Your task to perform on an android device: turn off wifi Image 0: 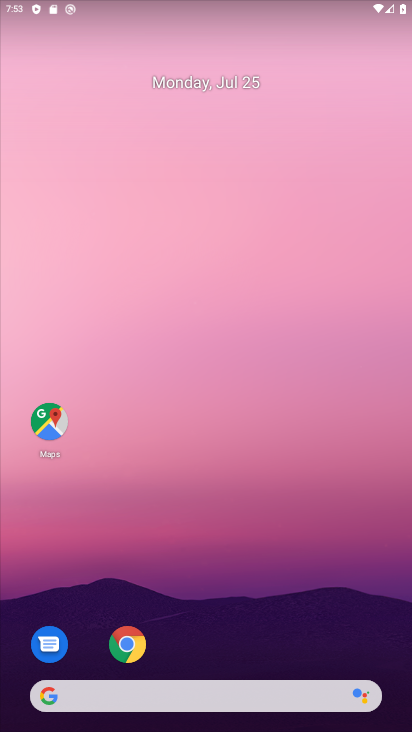
Step 0: drag from (172, 534) to (198, 95)
Your task to perform on an android device: turn off wifi Image 1: 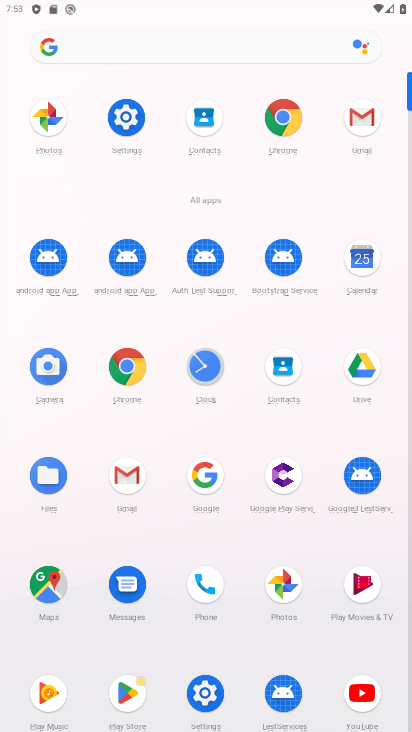
Step 1: click (130, 119)
Your task to perform on an android device: turn off wifi Image 2: 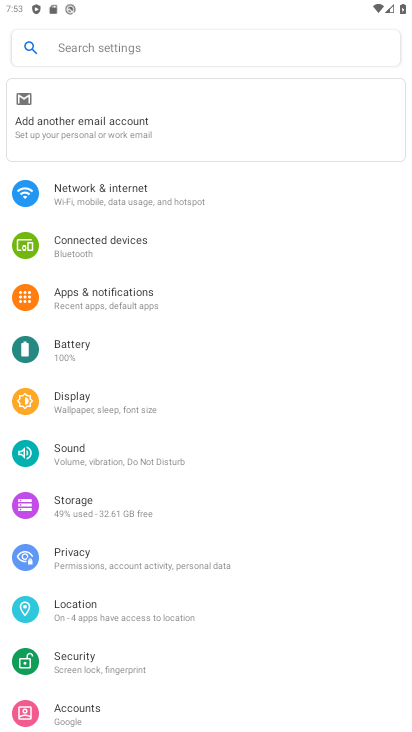
Step 2: click (107, 664)
Your task to perform on an android device: turn off wifi Image 3: 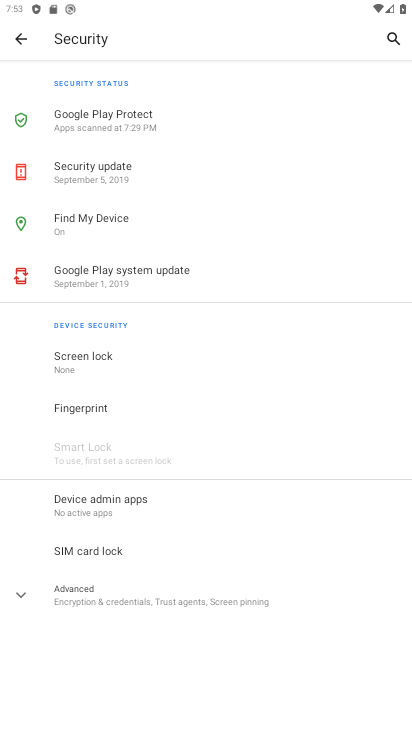
Step 3: click (21, 45)
Your task to perform on an android device: turn off wifi Image 4: 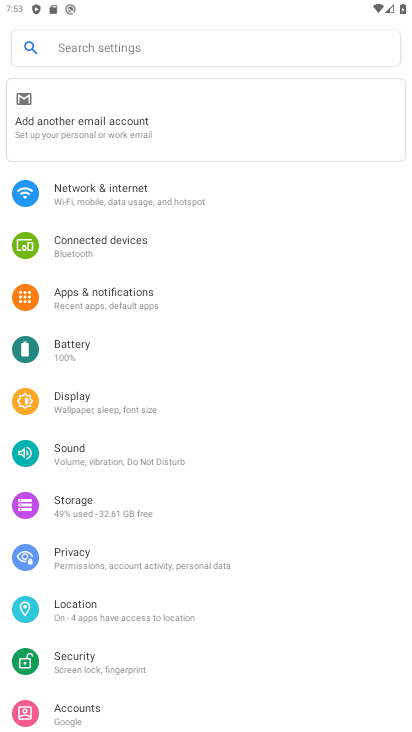
Step 4: drag from (172, 630) to (215, 331)
Your task to perform on an android device: turn off wifi Image 5: 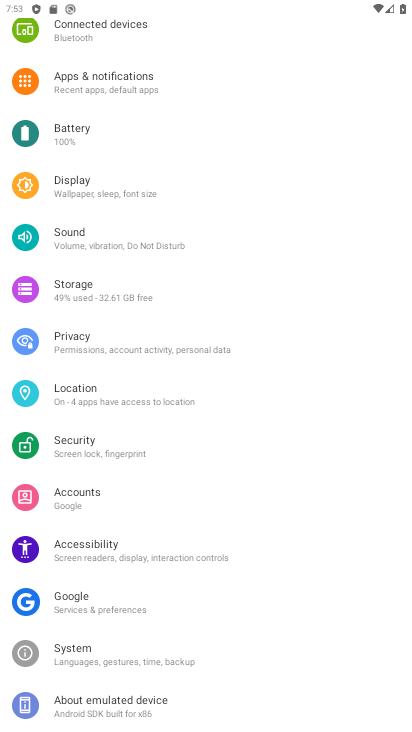
Step 5: drag from (199, 286) to (199, 614)
Your task to perform on an android device: turn off wifi Image 6: 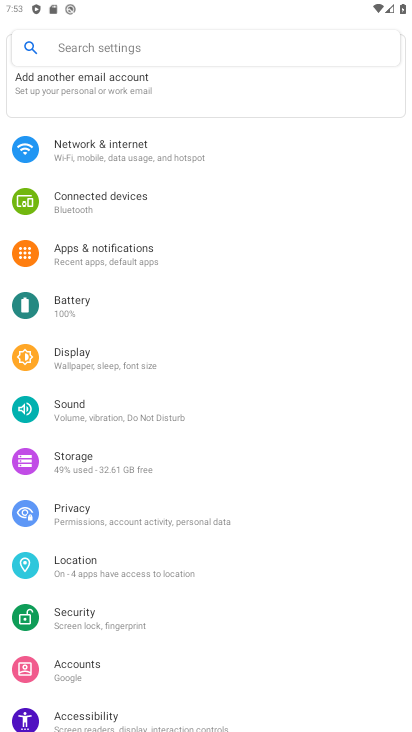
Step 6: click (159, 166)
Your task to perform on an android device: turn off wifi Image 7: 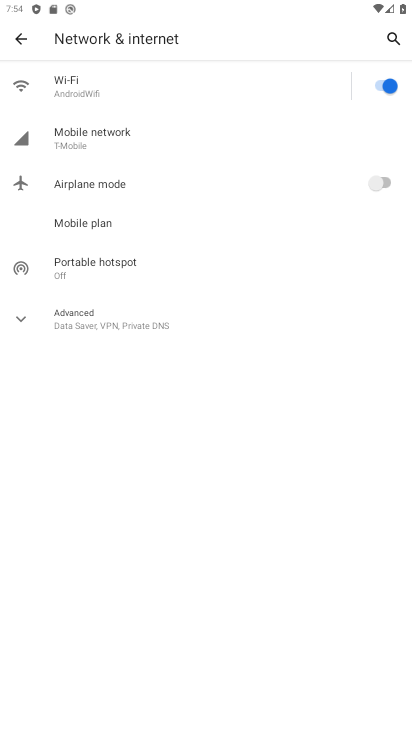
Step 7: click (371, 85)
Your task to perform on an android device: turn off wifi Image 8: 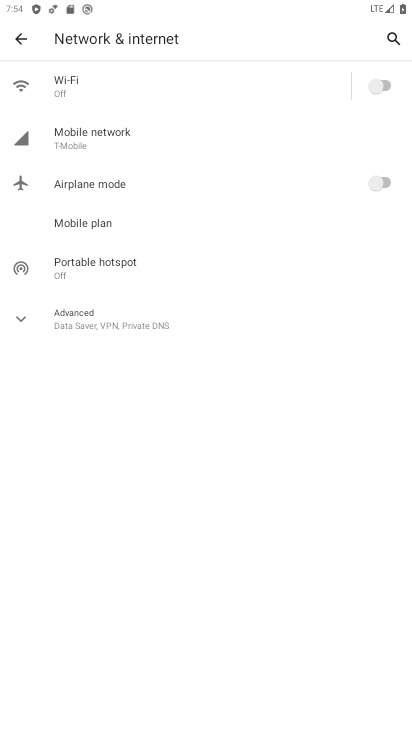
Step 8: task complete